Your task to perform on an android device: open chrome and create a bookmark for the current page Image 0: 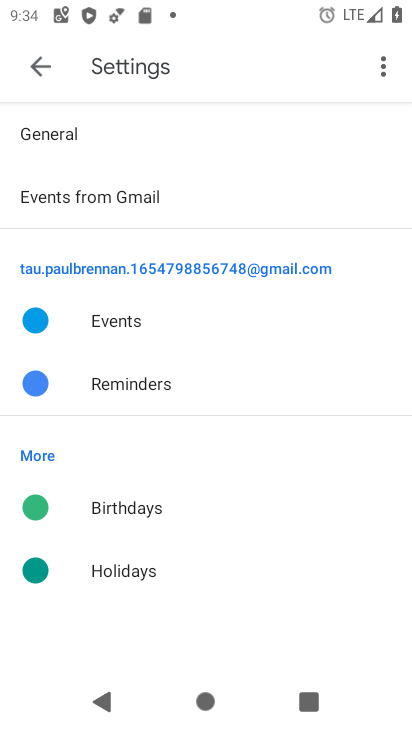
Step 0: press home button
Your task to perform on an android device: open chrome and create a bookmark for the current page Image 1: 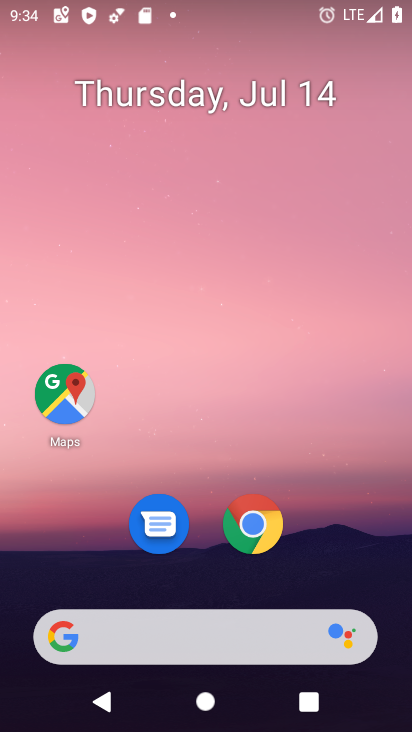
Step 1: click (258, 523)
Your task to perform on an android device: open chrome and create a bookmark for the current page Image 2: 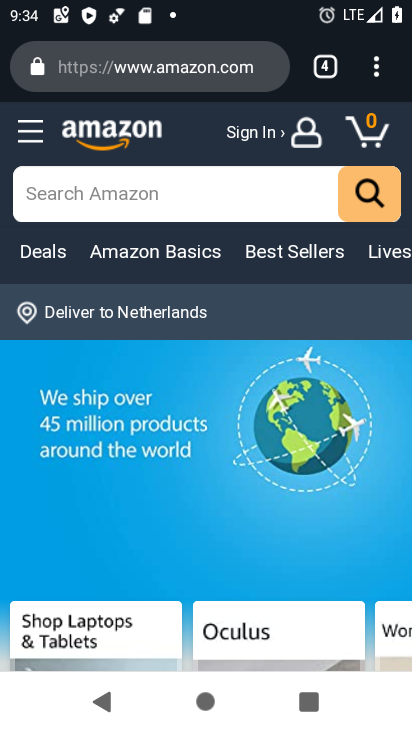
Step 2: click (379, 72)
Your task to perform on an android device: open chrome and create a bookmark for the current page Image 3: 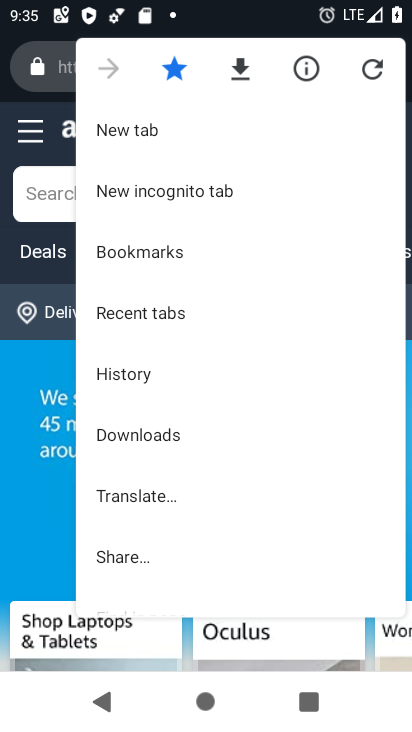
Step 3: task complete